Your task to perform on an android device: Clear the cart on bestbuy. Search for macbook pro on bestbuy, select the first entry, and add it to the cart. Image 0: 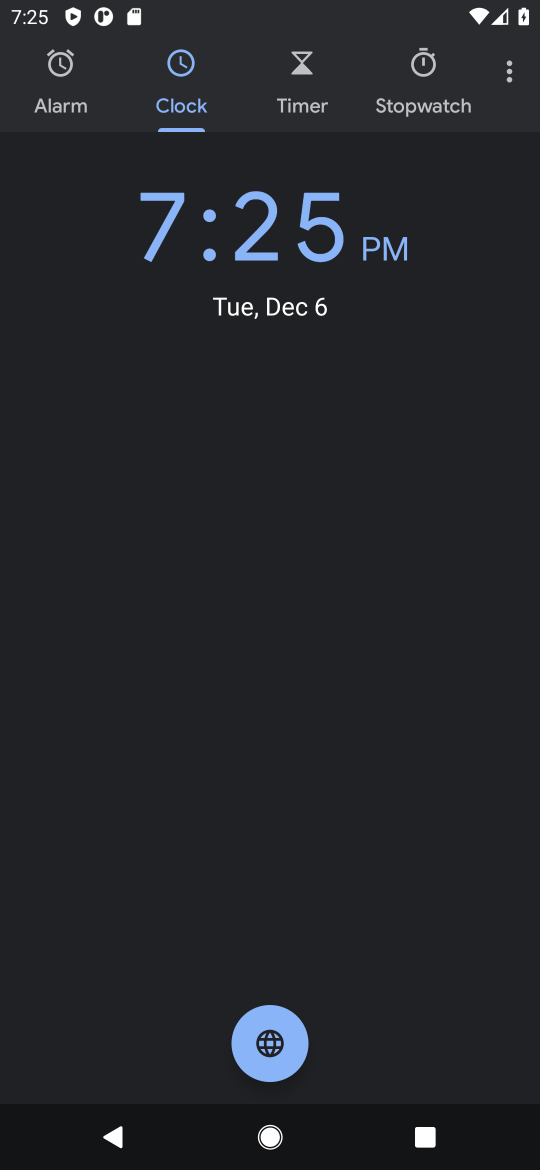
Step 0: press home button
Your task to perform on an android device: Clear the cart on bestbuy. Search for macbook pro on bestbuy, select the first entry, and add it to the cart. Image 1: 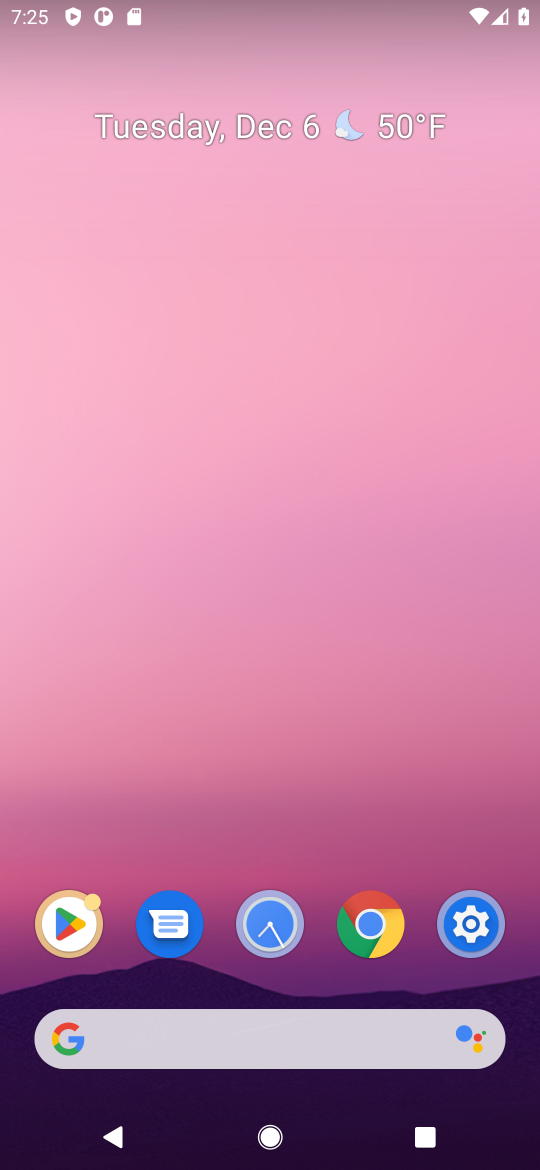
Step 1: click (281, 1039)
Your task to perform on an android device: Clear the cart on bestbuy. Search for macbook pro on bestbuy, select the first entry, and add it to the cart. Image 2: 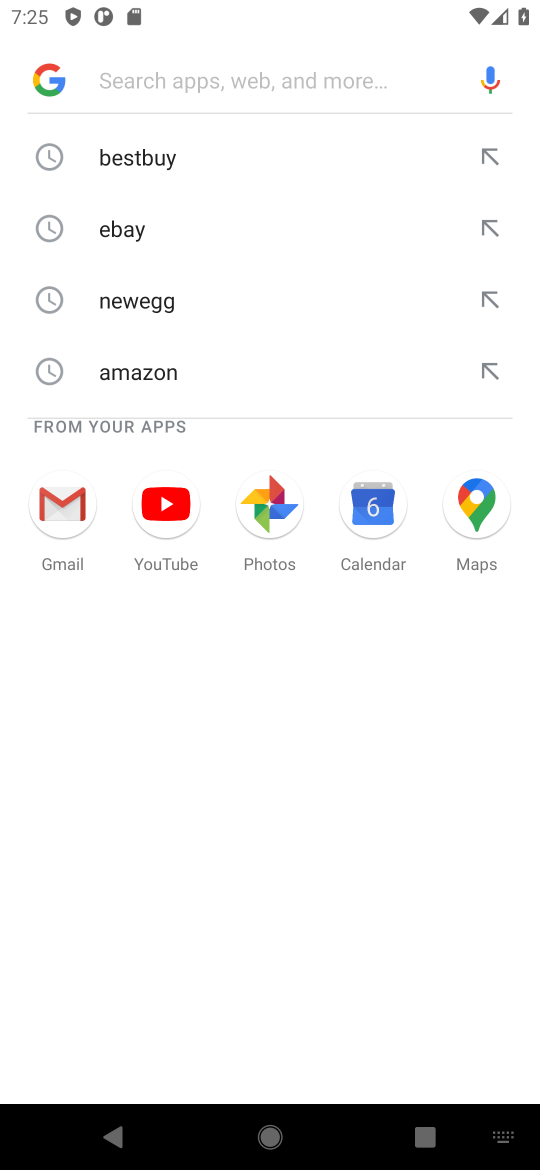
Step 2: type "macbook"
Your task to perform on an android device: Clear the cart on bestbuy. Search for macbook pro on bestbuy, select the first entry, and add it to the cart. Image 3: 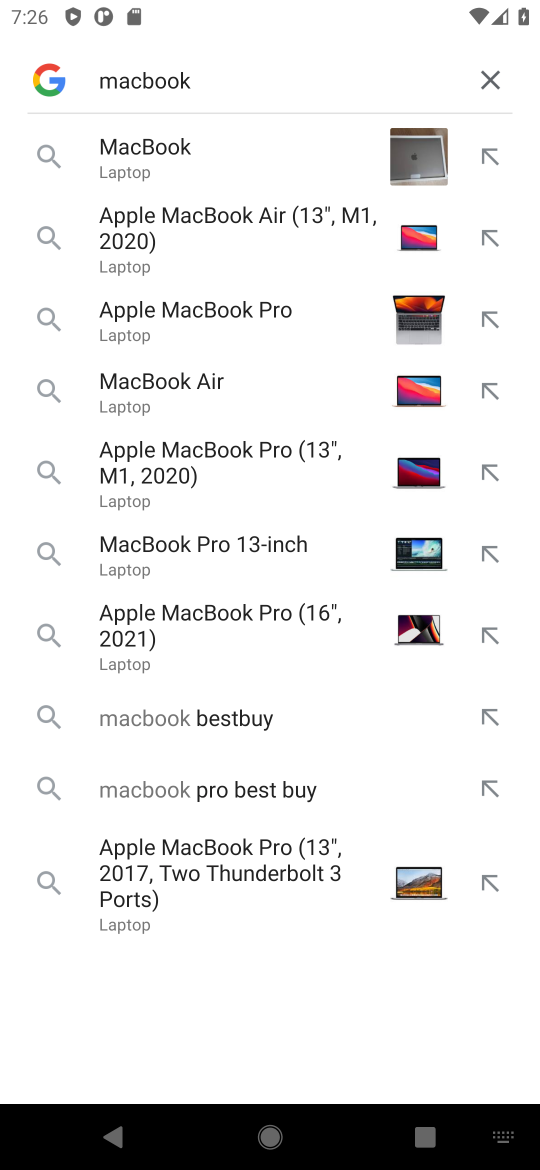
Step 3: click (145, 171)
Your task to perform on an android device: Clear the cart on bestbuy. Search for macbook pro on bestbuy, select the first entry, and add it to the cart. Image 4: 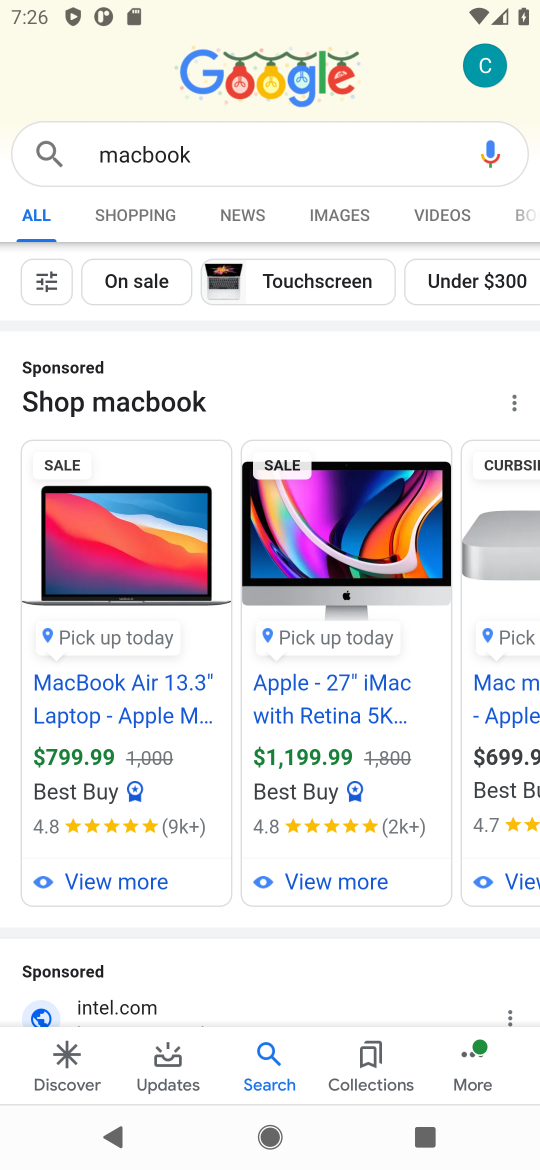
Step 4: click (90, 620)
Your task to perform on an android device: Clear the cart on bestbuy. Search for macbook pro on bestbuy, select the first entry, and add it to the cart. Image 5: 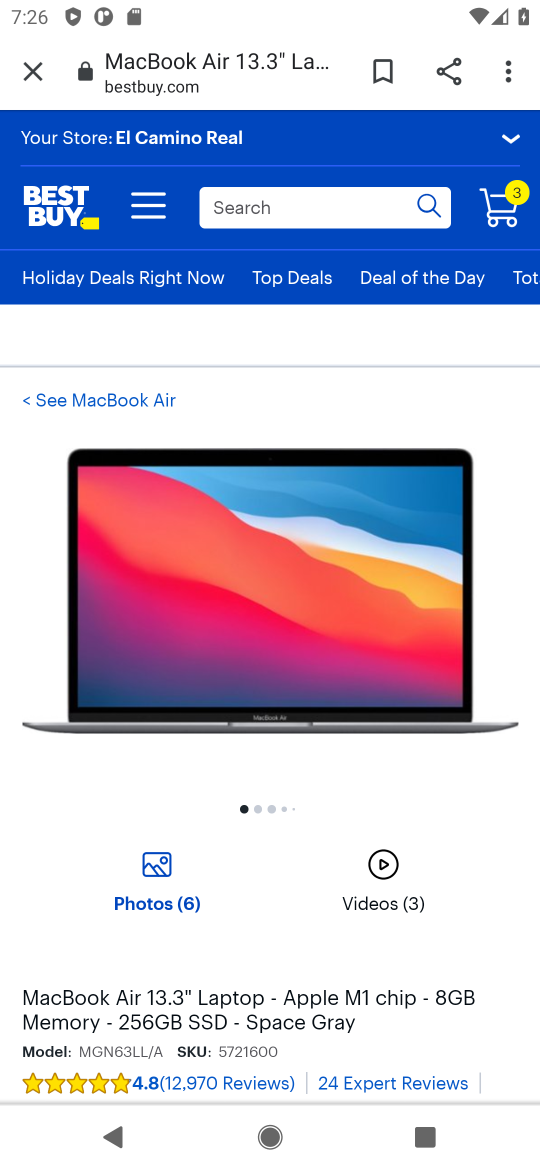
Step 5: task complete